Your task to perform on an android device: turn on priority inbox in the gmail app Image 0: 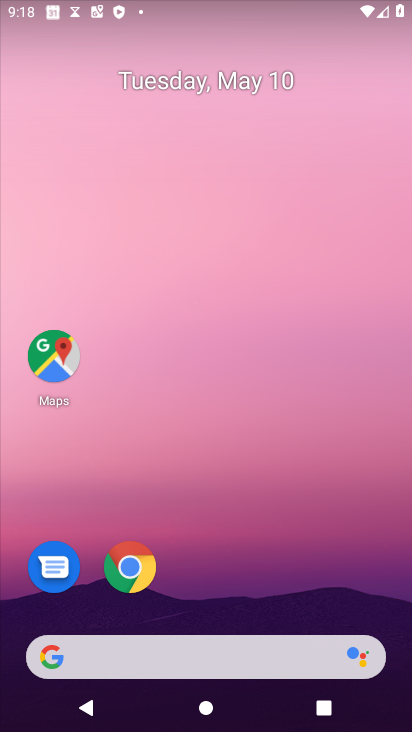
Step 0: press home button
Your task to perform on an android device: turn on priority inbox in the gmail app Image 1: 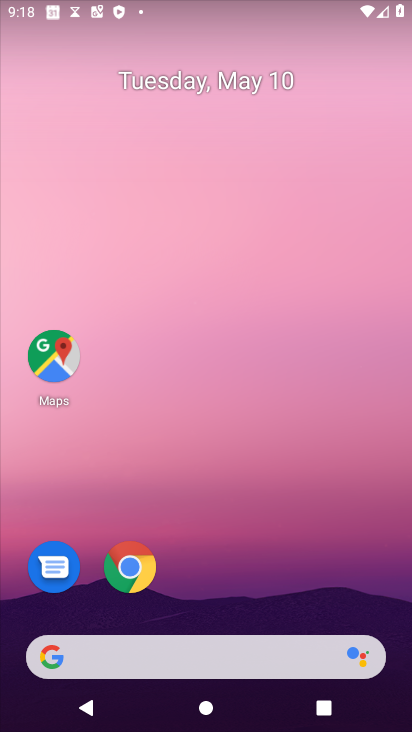
Step 1: drag from (24, 491) to (157, 126)
Your task to perform on an android device: turn on priority inbox in the gmail app Image 2: 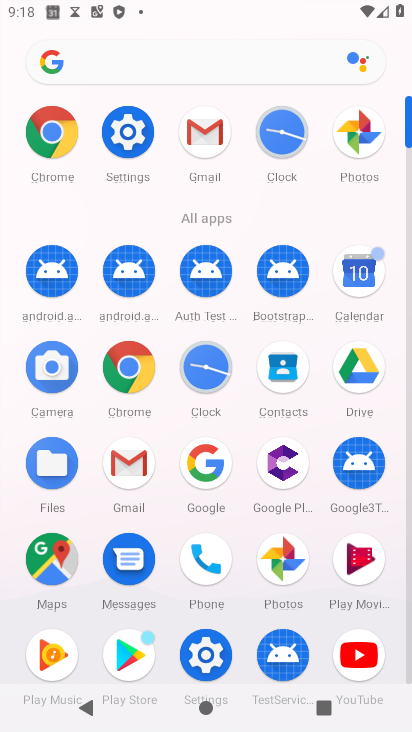
Step 2: click (208, 130)
Your task to perform on an android device: turn on priority inbox in the gmail app Image 3: 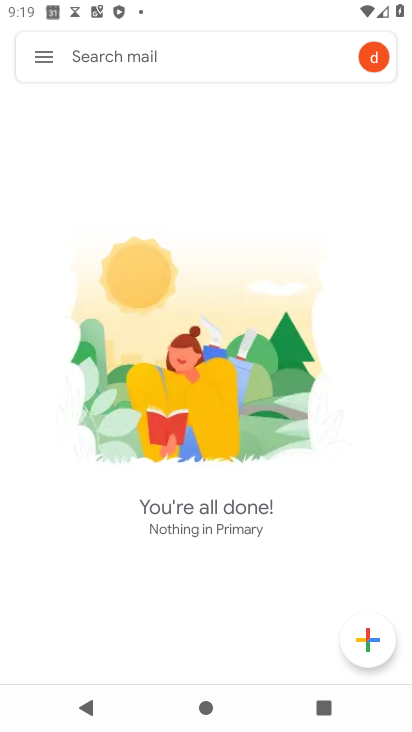
Step 3: click (44, 55)
Your task to perform on an android device: turn on priority inbox in the gmail app Image 4: 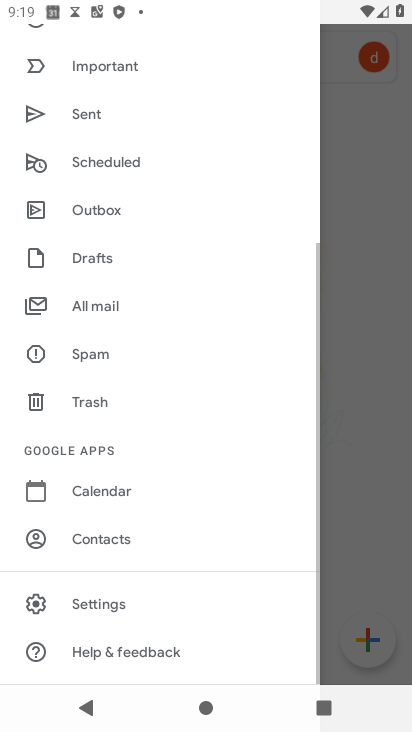
Step 4: click (90, 607)
Your task to perform on an android device: turn on priority inbox in the gmail app Image 5: 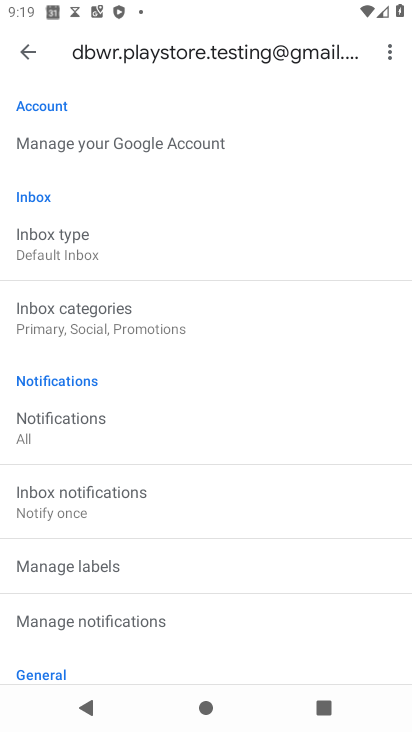
Step 5: click (50, 252)
Your task to perform on an android device: turn on priority inbox in the gmail app Image 6: 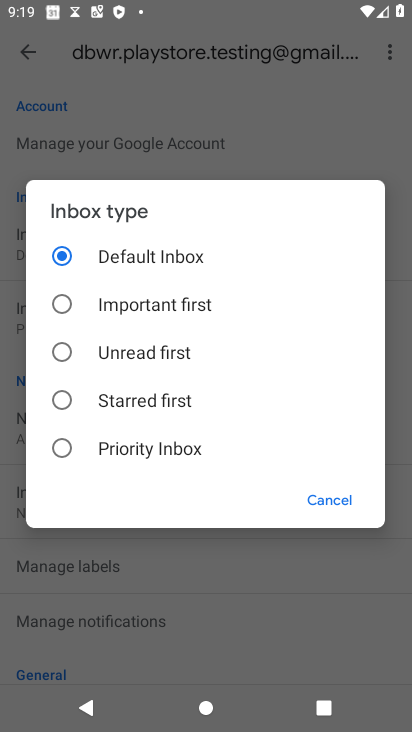
Step 6: click (185, 456)
Your task to perform on an android device: turn on priority inbox in the gmail app Image 7: 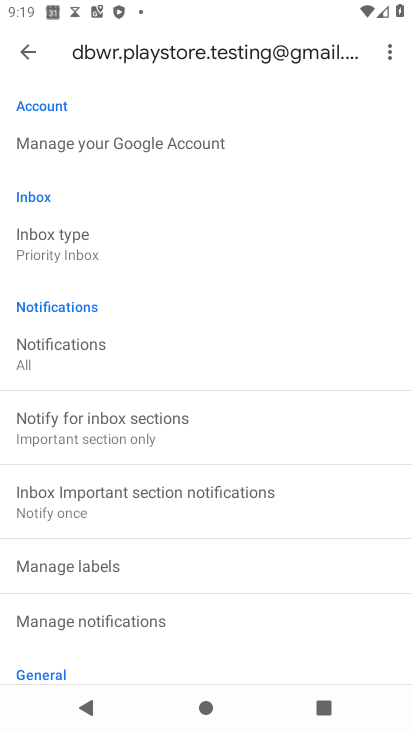
Step 7: task complete